Your task to perform on an android device: change the upload size in google photos Image 0: 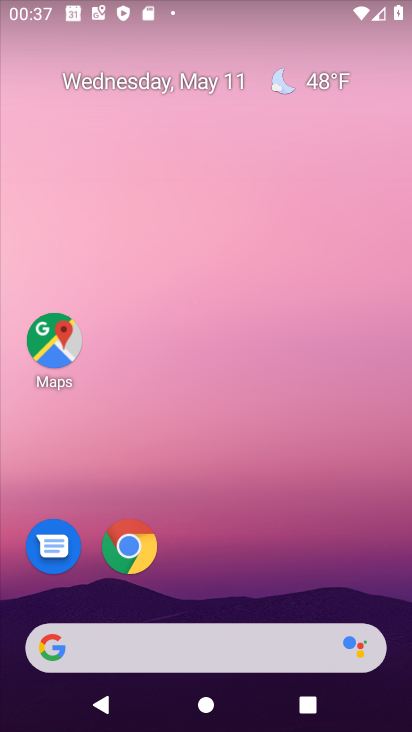
Step 0: drag from (205, 573) to (208, 183)
Your task to perform on an android device: change the upload size in google photos Image 1: 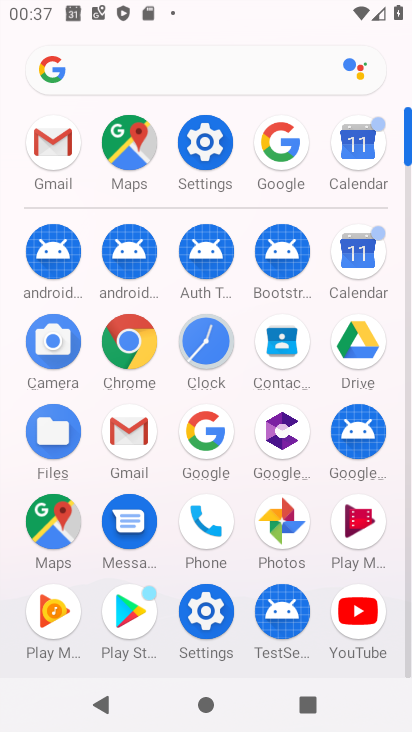
Step 1: click (280, 531)
Your task to perform on an android device: change the upload size in google photos Image 2: 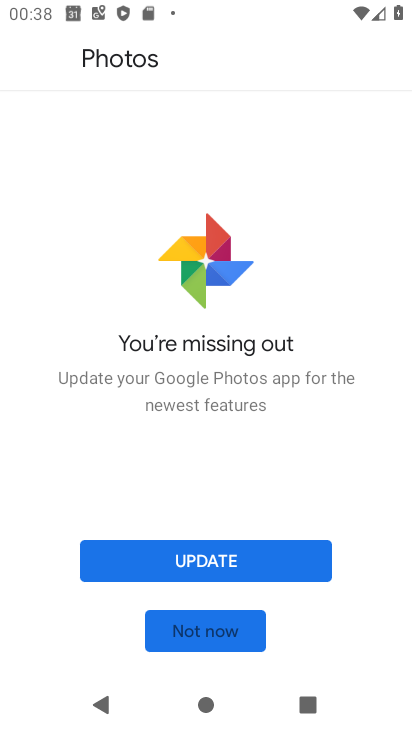
Step 2: click (227, 621)
Your task to perform on an android device: change the upload size in google photos Image 3: 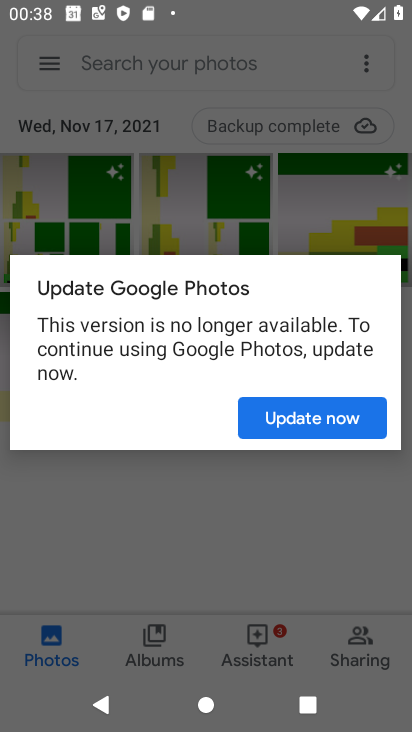
Step 3: click (309, 418)
Your task to perform on an android device: change the upload size in google photos Image 4: 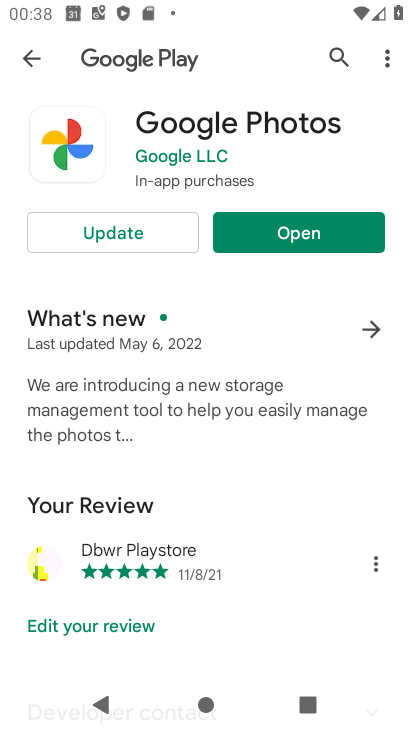
Step 4: click (302, 247)
Your task to perform on an android device: change the upload size in google photos Image 5: 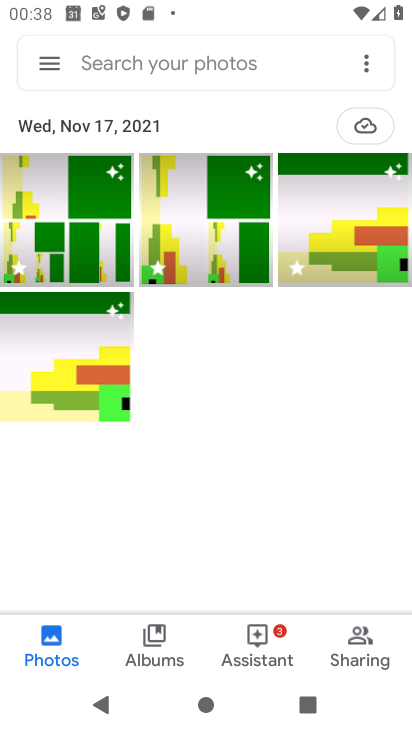
Step 5: click (42, 60)
Your task to perform on an android device: change the upload size in google photos Image 6: 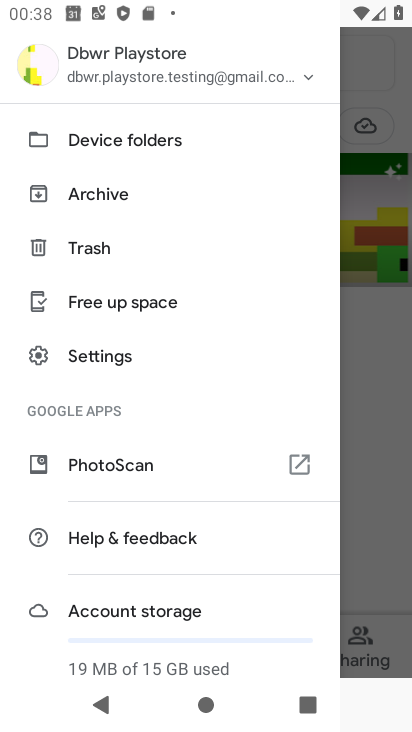
Step 6: drag from (141, 627) to (122, 357)
Your task to perform on an android device: change the upload size in google photos Image 7: 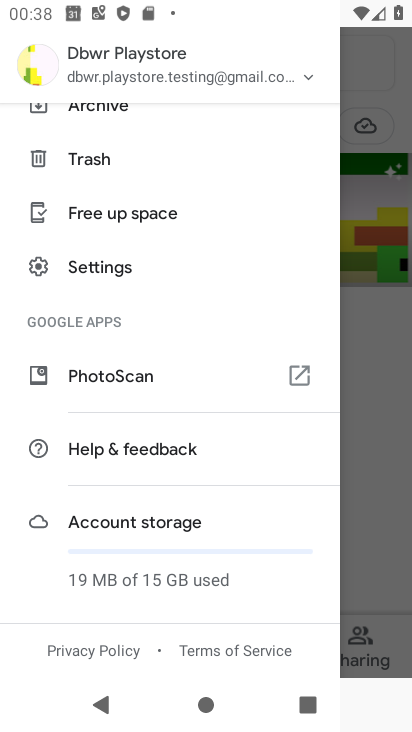
Step 7: click (92, 271)
Your task to perform on an android device: change the upload size in google photos Image 8: 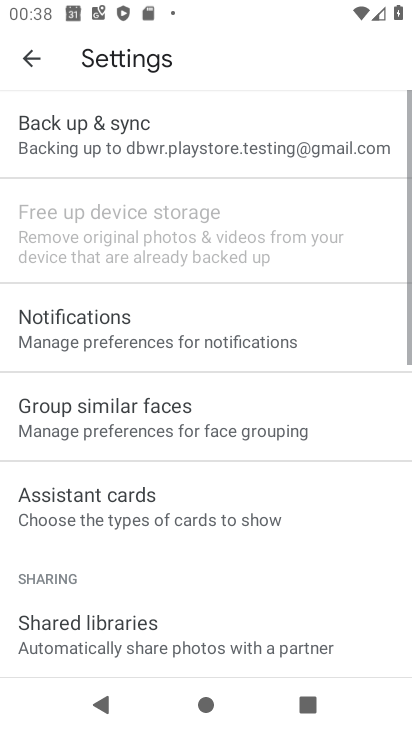
Step 8: click (117, 156)
Your task to perform on an android device: change the upload size in google photos Image 9: 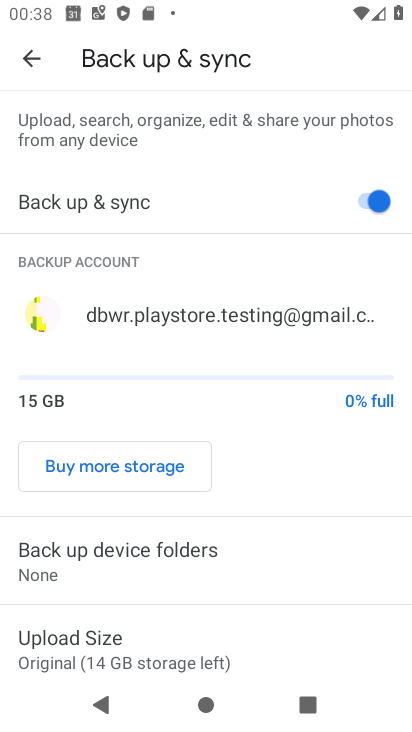
Step 9: drag from (239, 580) to (251, 405)
Your task to perform on an android device: change the upload size in google photos Image 10: 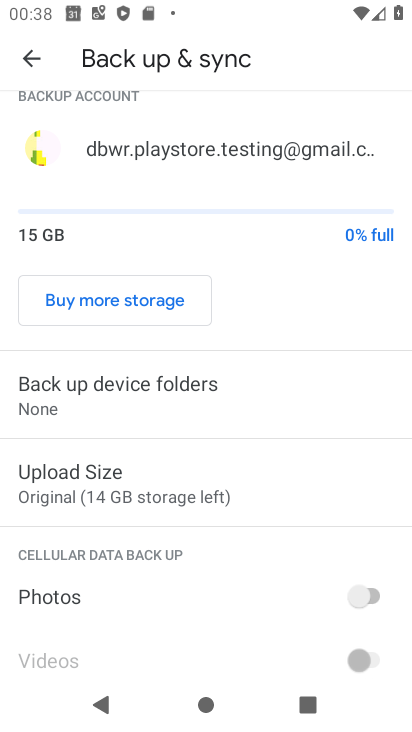
Step 10: click (159, 507)
Your task to perform on an android device: change the upload size in google photos Image 11: 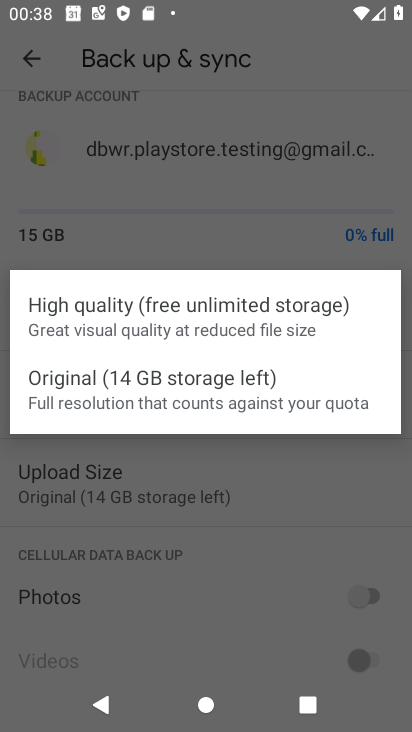
Step 11: click (111, 311)
Your task to perform on an android device: change the upload size in google photos Image 12: 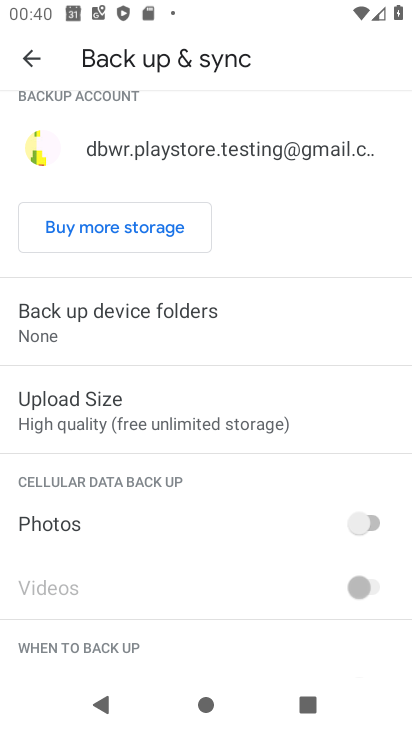
Step 12: task complete